Your task to perform on an android device: Open the calendar and show me this week's events? Image 0: 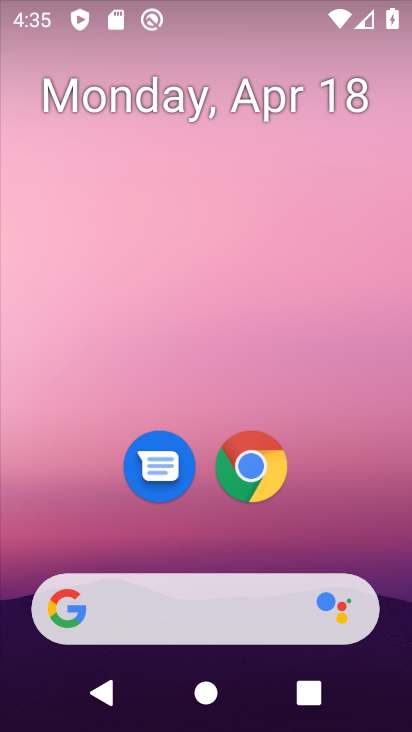
Step 0: drag from (338, 426) to (253, 4)
Your task to perform on an android device: Open the calendar and show me this week's events? Image 1: 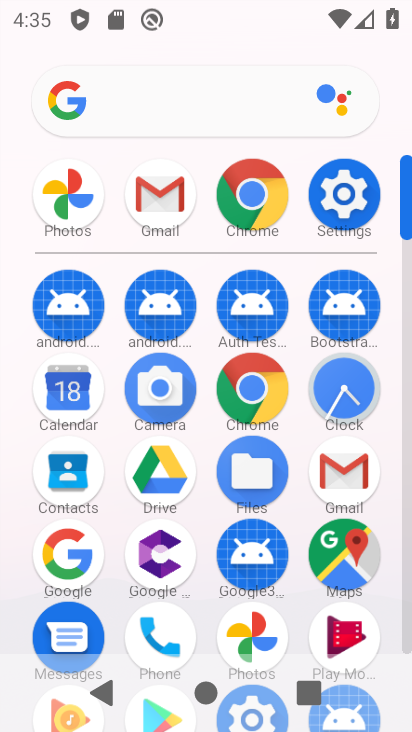
Step 1: drag from (0, 494) to (20, 219)
Your task to perform on an android device: Open the calendar and show me this week's events? Image 2: 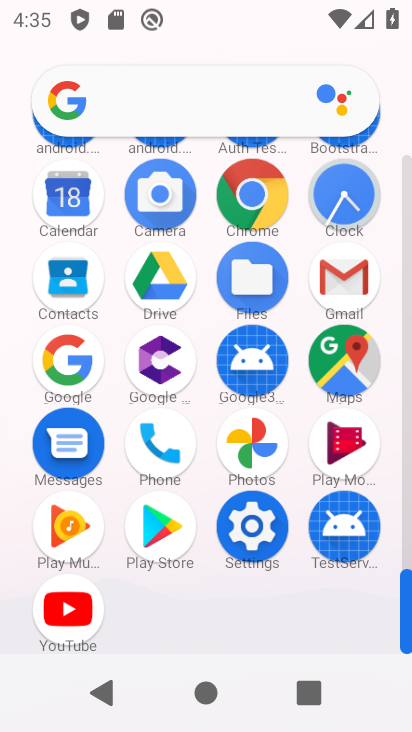
Step 2: click (60, 190)
Your task to perform on an android device: Open the calendar and show me this week's events? Image 3: 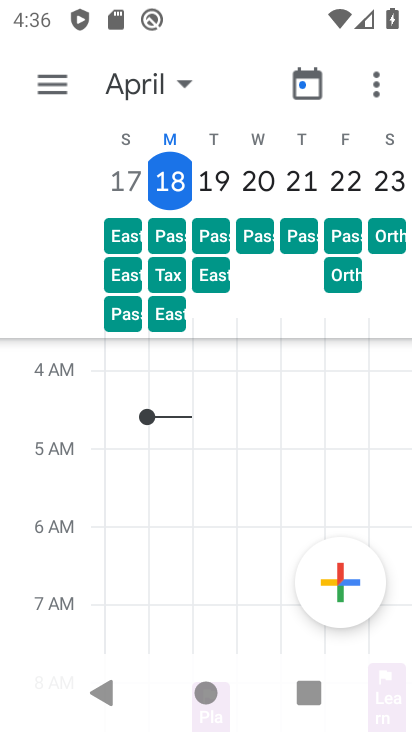
Step 3: click (56, 85)
Your task to perform on an android device: Open the calendar and show me this week's events? Image 4: 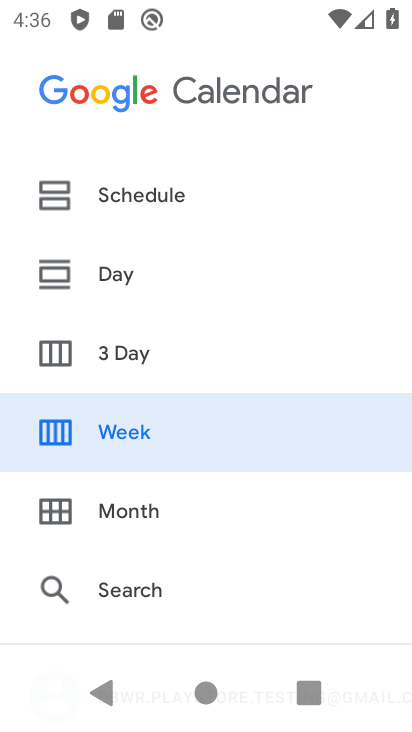
Step 4: drag from (122, 634) to (131, 255)
Your task to perform on an android device: Open the calendar and show me this week's events? Image 5: 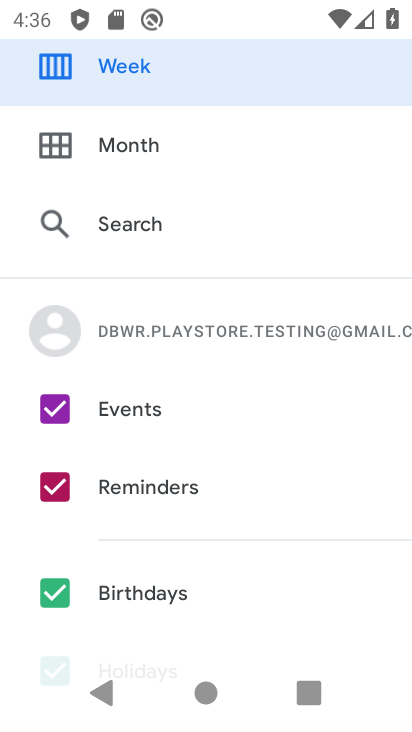
Step 5: drag from (309, 162) to (11, 200)
Your task to perform on an android device: Open the calendar and show me this week's events? Image 6: 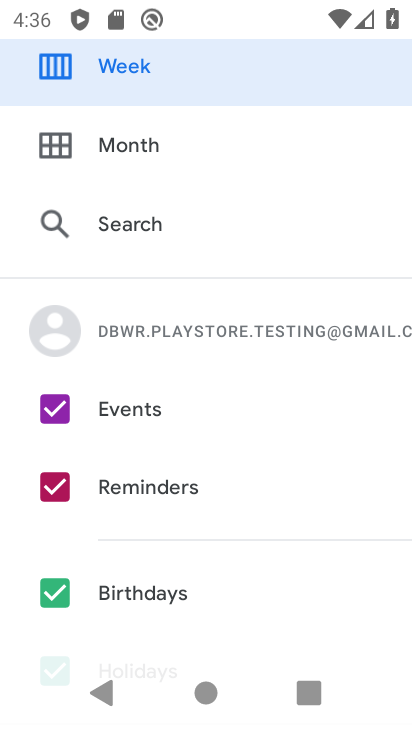
Step 6: drag from (405, 258) to (18, 254)
Your task to perform on an android device: Open the calendar and show me this week's events? Image 7: 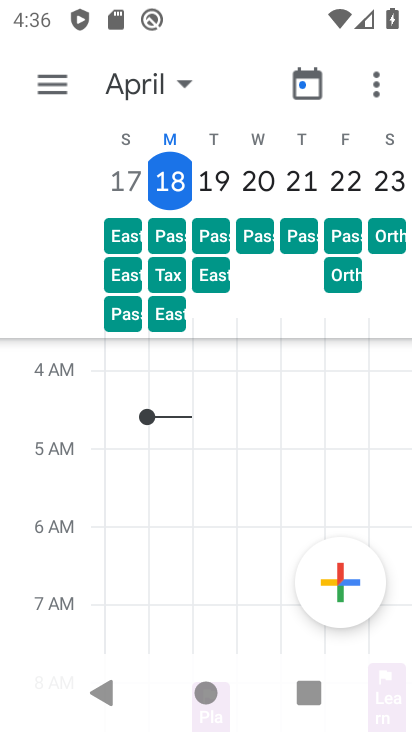
Step 7: click (273, 302)
Your task to perform on an android device: Open the calendar and show me this week's events? Image 8: 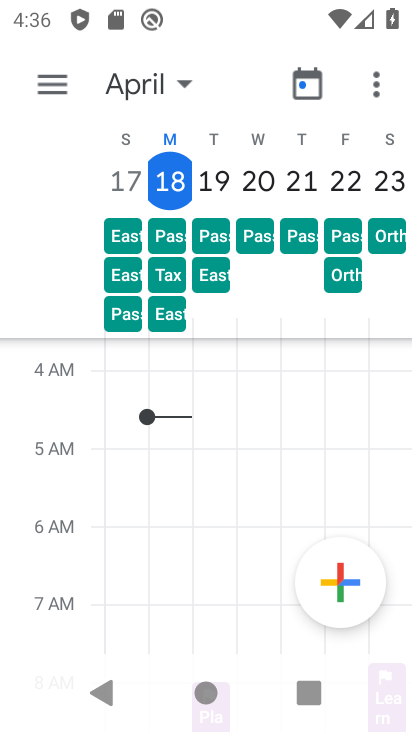
Step 8: task complete